Your task to perform on an android device: Go to sound settings Image 0: 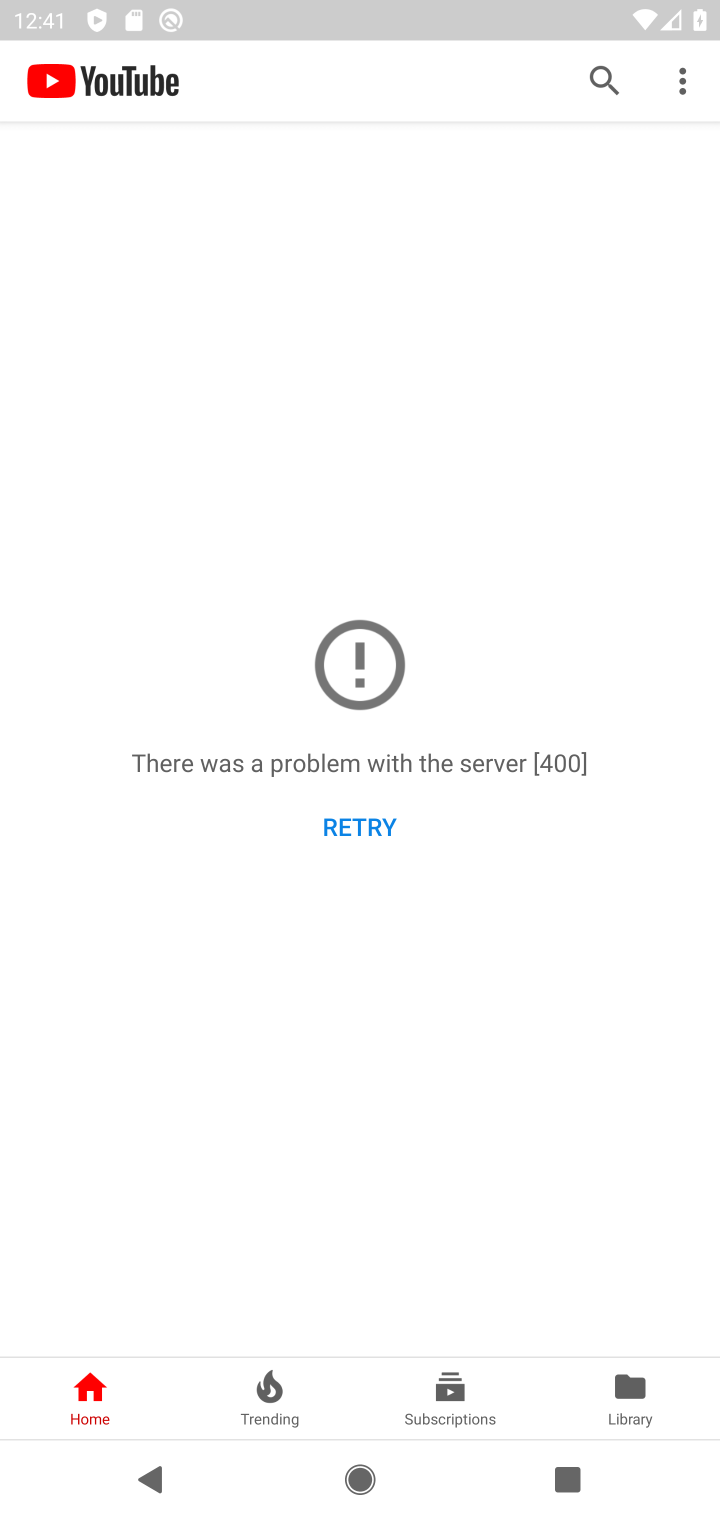
Step 0: press home button
Your task to perform on an android device: Go to sound settings Image 1: 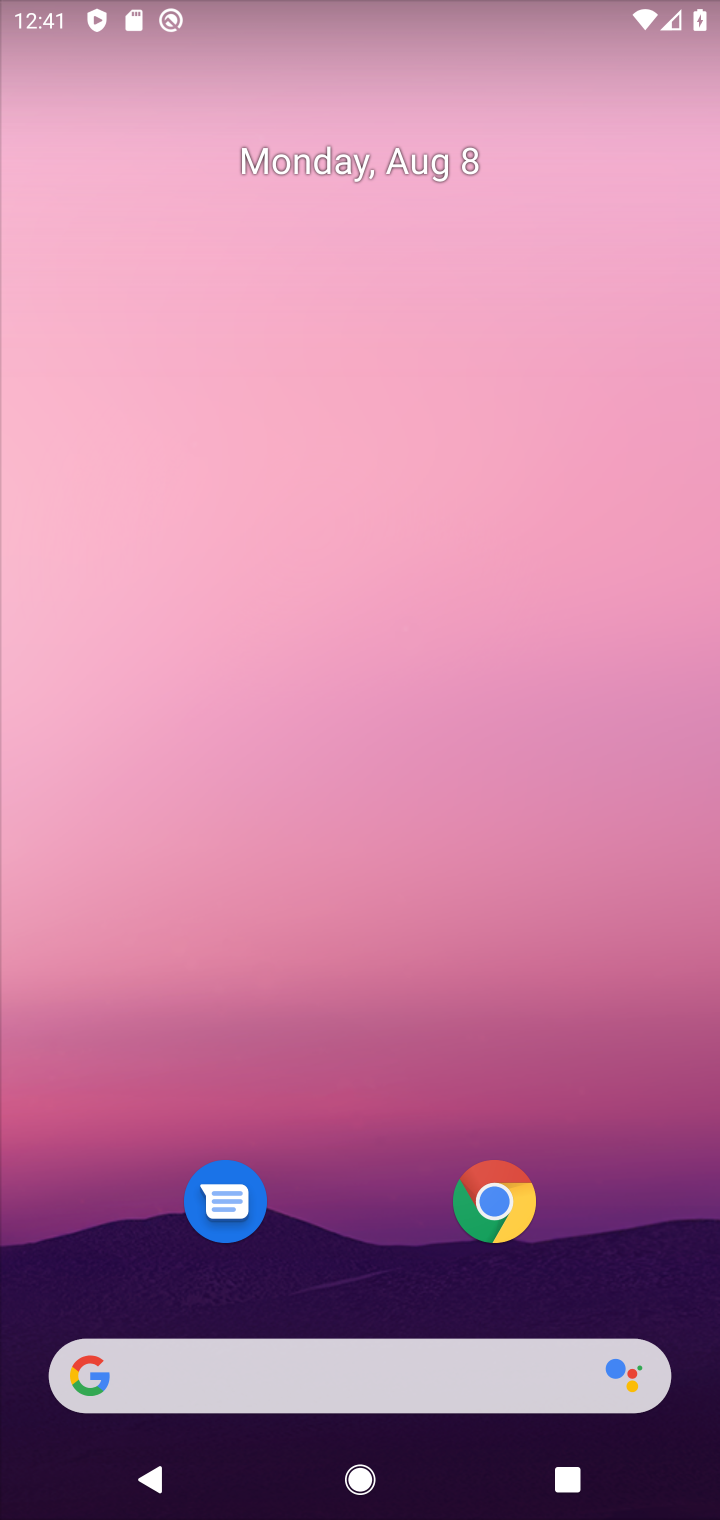
Step 1: drag from (460, 1261) to (536, 381)
Your task to perform on an android device: Go to sound settings Image 2: 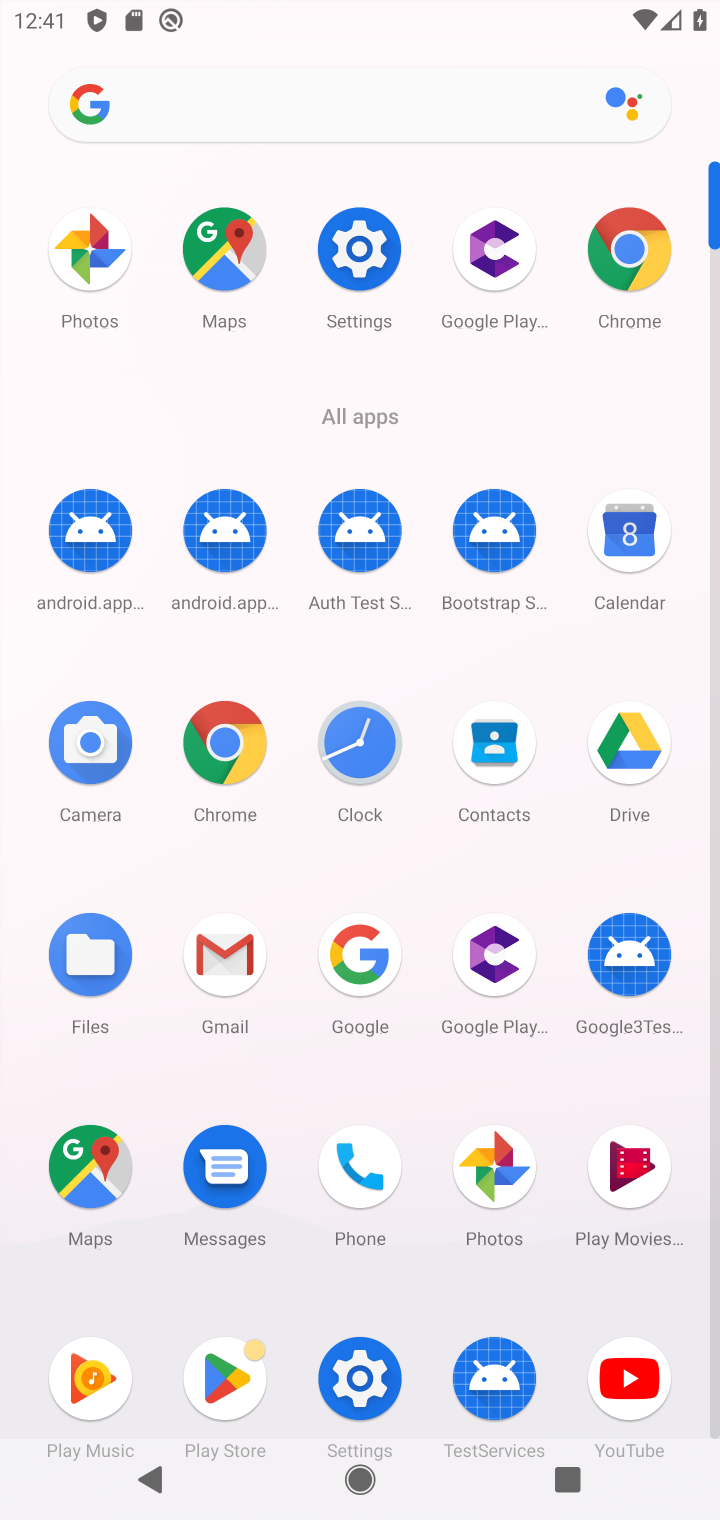
Step 2: click (379, 246)
Your task to perform on an android device: Go to sound settings Image 3: 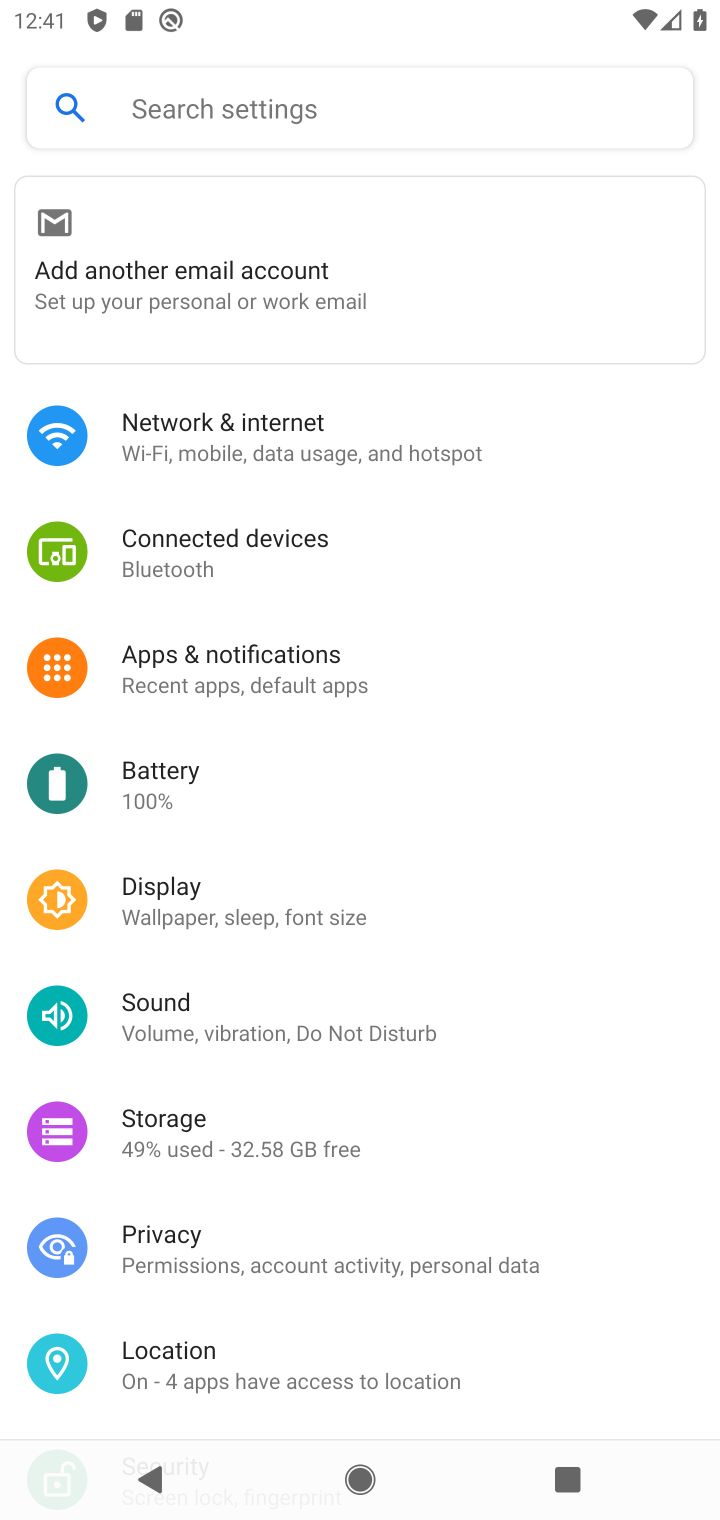
Step 3: click (258, 1026)
Your task to perform on an android device: Go to sound settings Image 4: 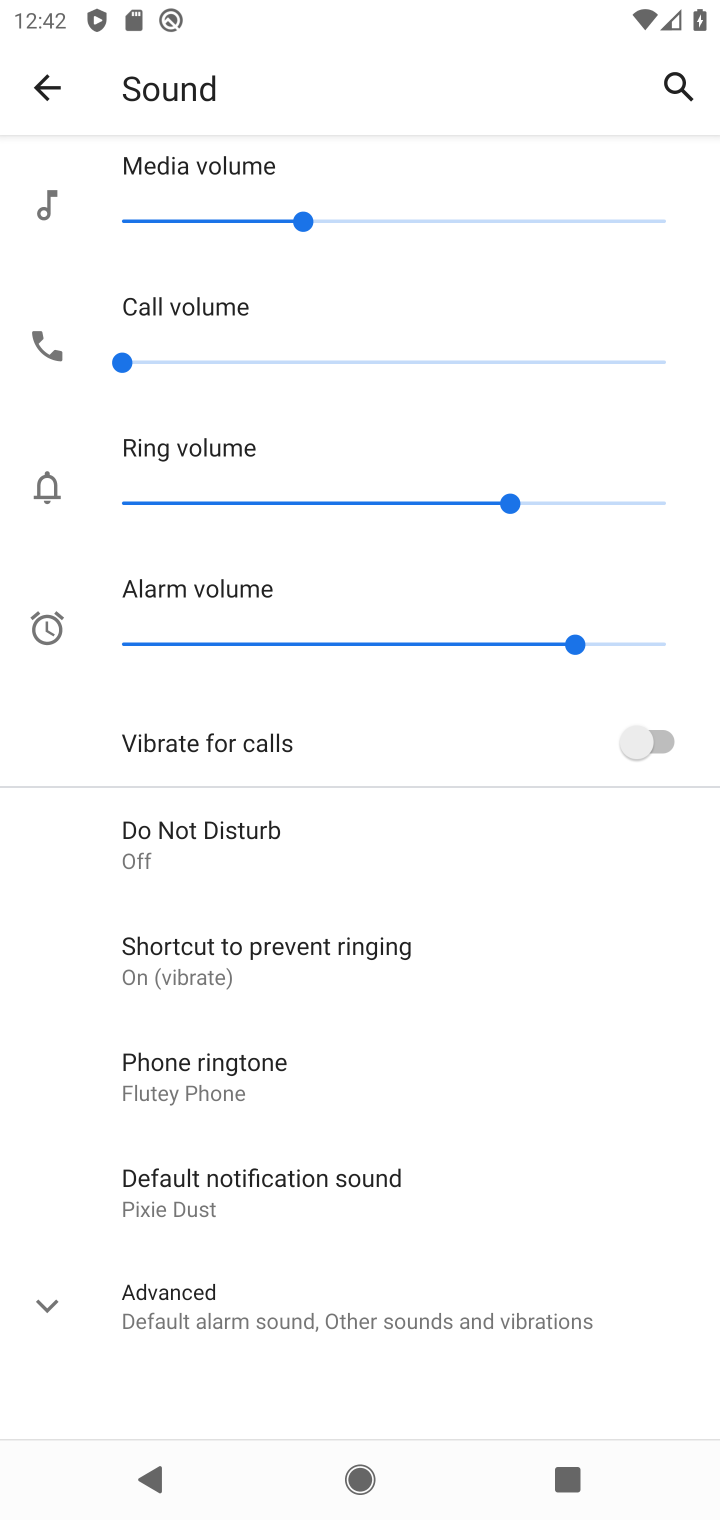
Step 4: task complete